Your task to perform on an android device: check out phone information Image 0: 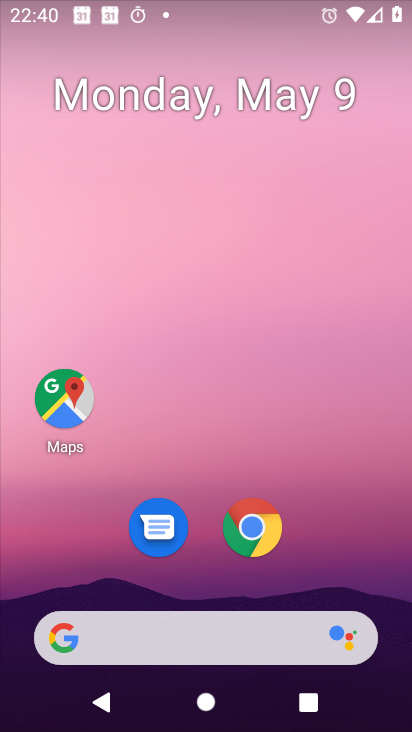
Step 0: drag from (209, 561) to (245, 86)
Your task to perform on an android device: check out phone information Image 1: 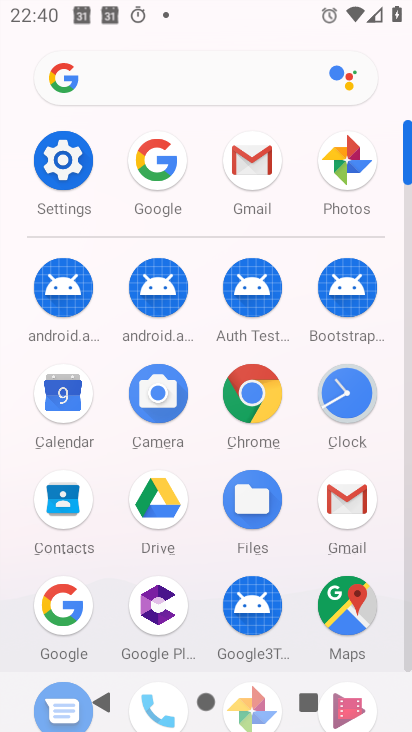
Step 1: click (65, 162)
Your task to perform on an android device: check out phone information Image 2: 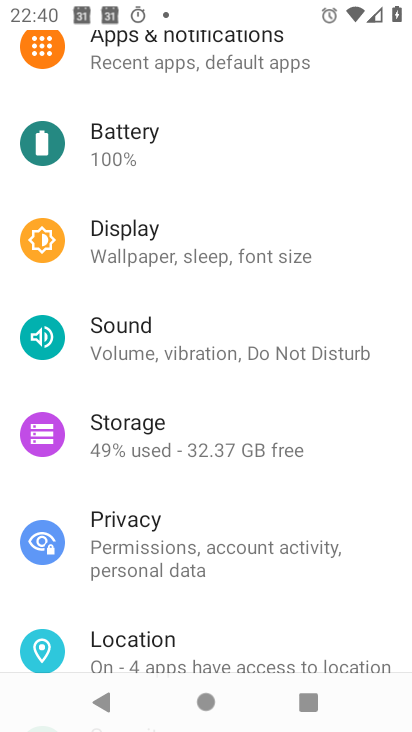
Step 2: drag from (246, 554) to (252, 75)
Your task to perform on an android device: check out phone information Image 3: 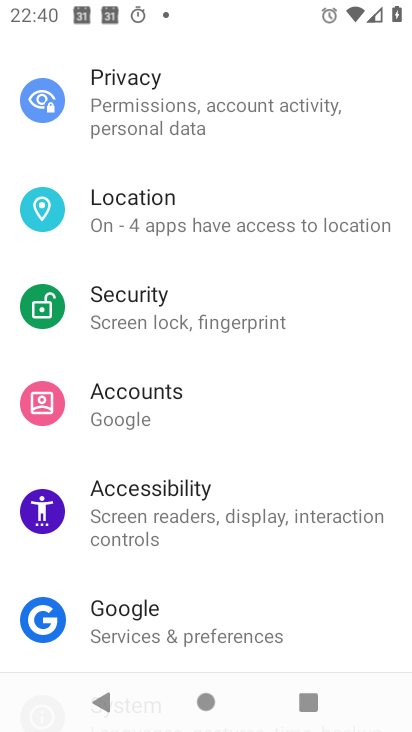
Step 3: drag from (208, 513) to (225, 89)
Your task to perform on an android device: check out phone information Image 4: 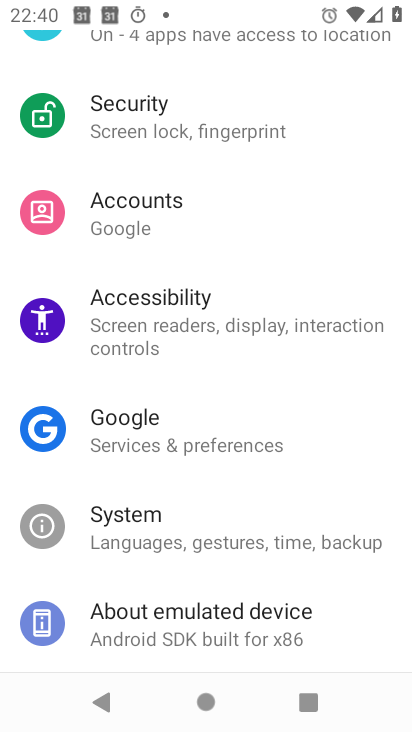
Step 4: click (178, 626)
Your task to perform on an android device: check out phone information Image 5: 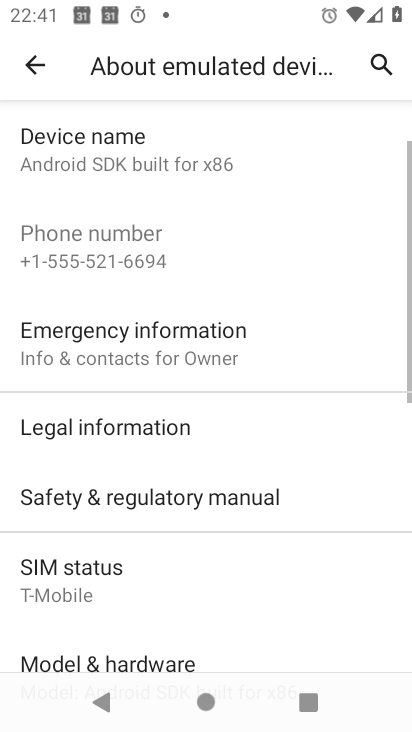
Step 5: task complete